Your task to perform on an android device: change notification settings in the gmail app Image 0: 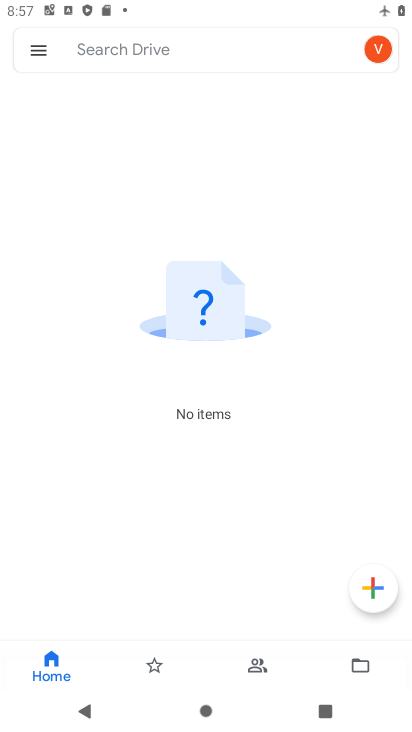
Step 0: press home button
Your task to perform on an android device: change notification settings in the gmail app Image 1: 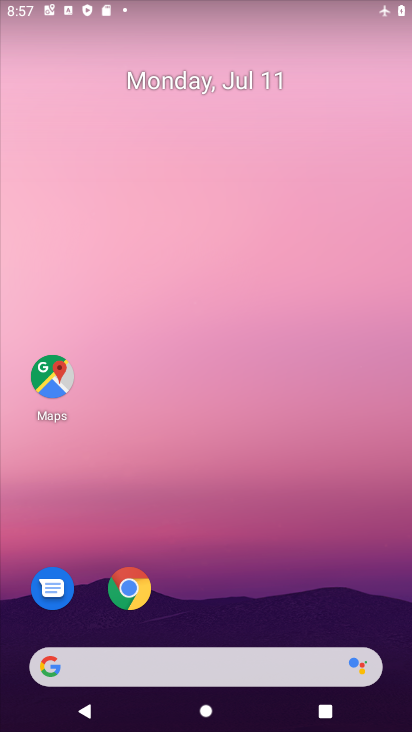
Step 1: drag from (401, 669) to (195, 62)
Your task to perform on an android device: change notification settings in the gmail app Image 2: 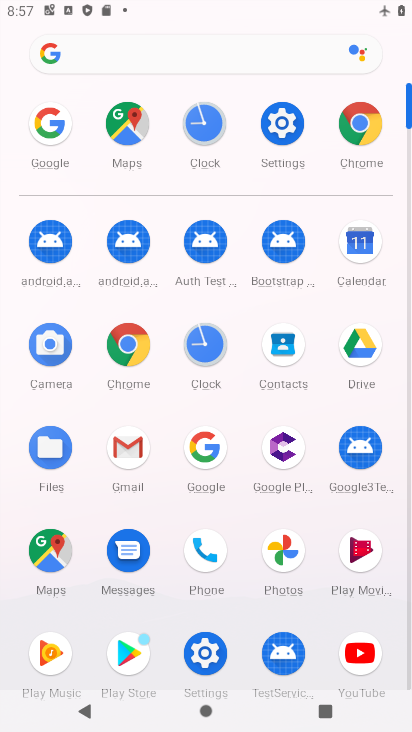
Step 2: click (130, 449)
Your task to perform on an android device: change notification settings in the gmail app Image 3: 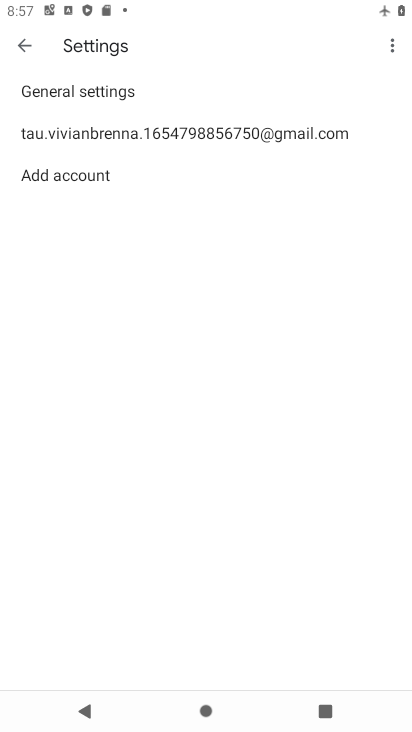
Step 3: click (231, 138)
Your task to perform on an android device: change notification settings in the gmail app Image 4: 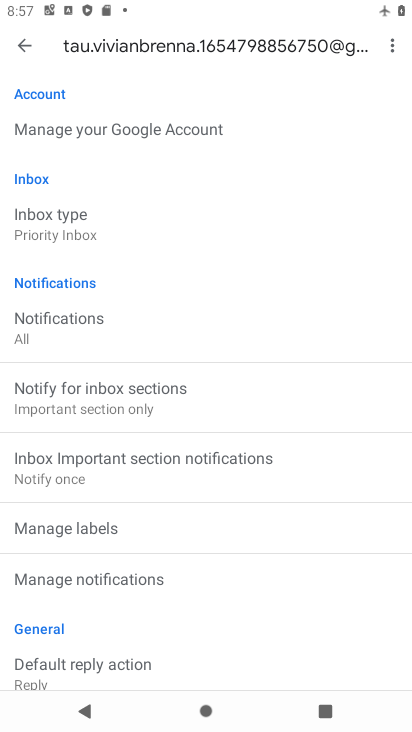
Step 4: click (89, 330)
Your task to perform on an android device: change notification settings in the gmail app Image 5: 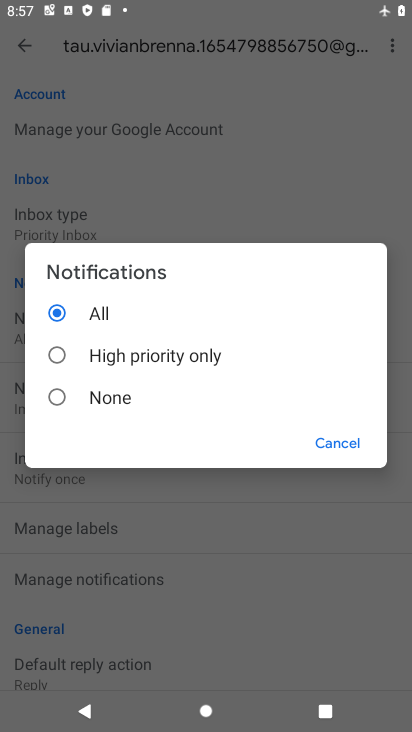
Step 5: click (65, 397)
Your task to perform on an android device: change notification settings in the gmail app Image 6: 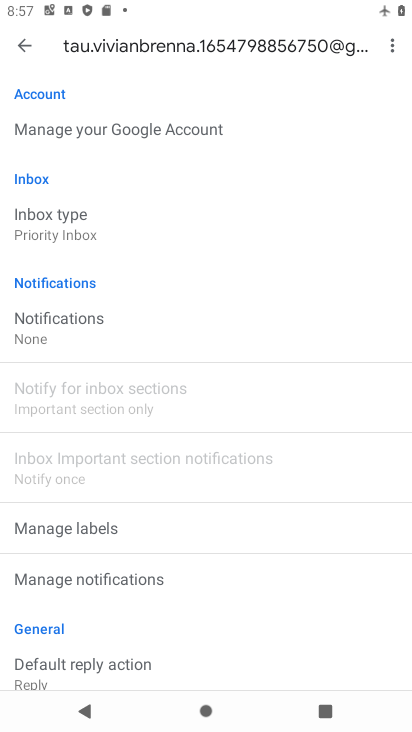
Step 6: task complete